Your task to perform on an android device: Go to Google Image 0: 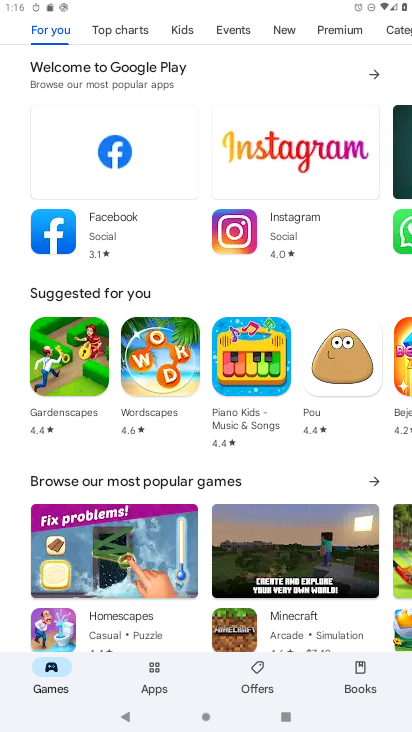
Step 0: press home button
Your task to perform on an android device: Go to Google Image 1: 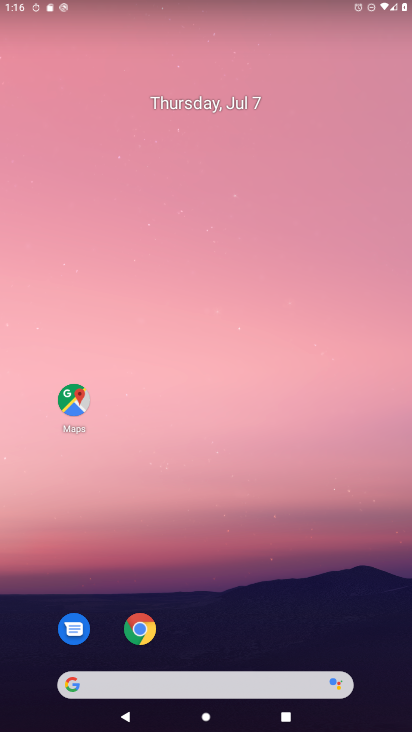
Step 1: drag from (215, 643) to (224, 205)
Your task to perform on an android device: Go to Google Image 2: 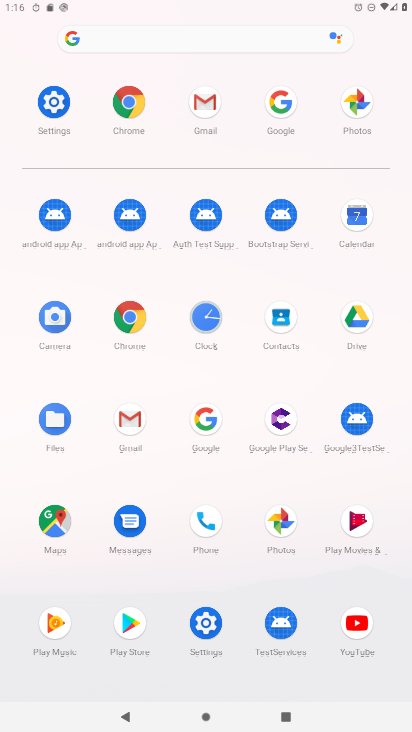
Step 2: click (277, 115)
Your task to perform on an android device: Go to Google Image 3: 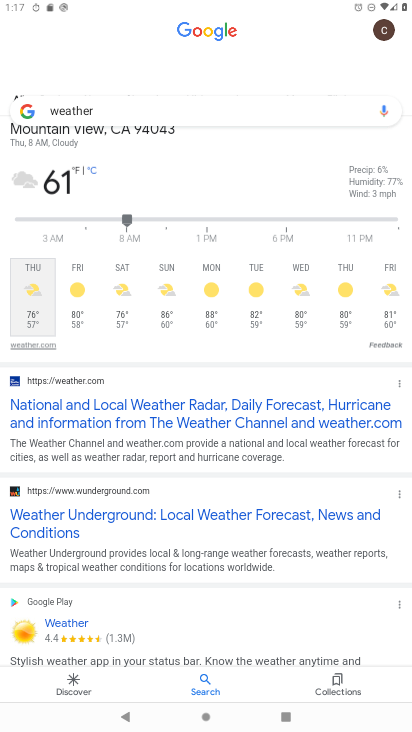
Step 3: task complete